Your task to perform on an android device: Open Google Image 0: 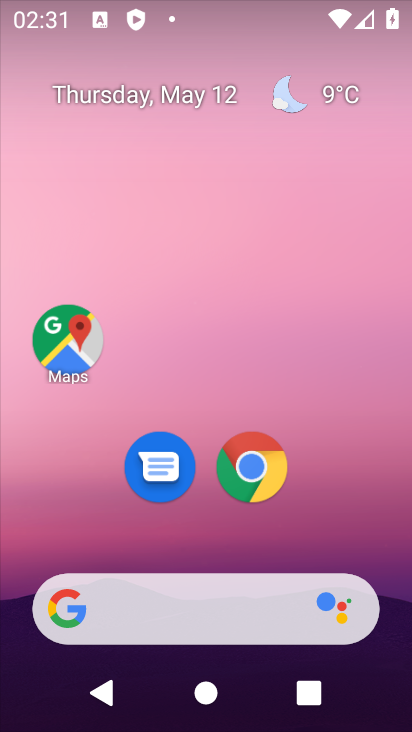
Step 0: drag from (324, 555) to (344, 255)
Your task to perform on an android device: Open Google Image 1: 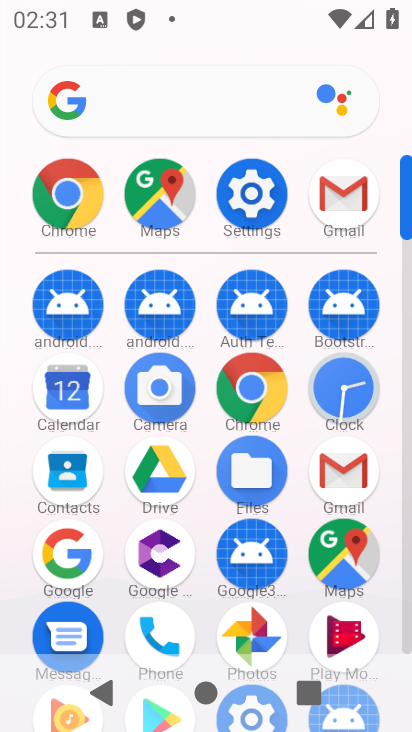
Step 1: drag from (220, 494) to (228, 262)
Your task to perform on an android device: Open Google Image 2: 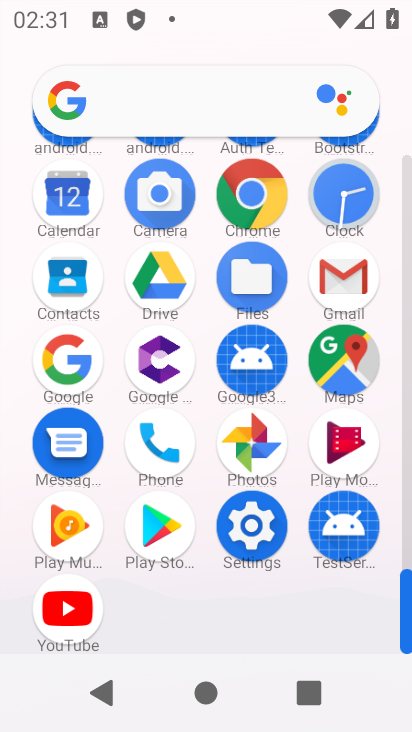
Step 2: click (69, 351)
Your task to perform on an android device: Open Google Image 3: 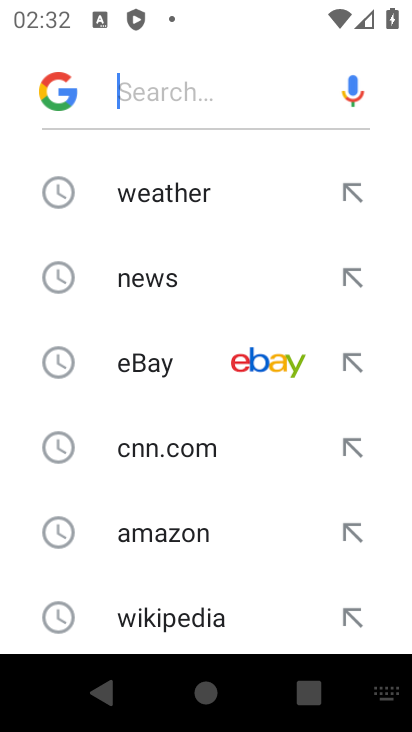
Step 3: task complete